Your task to perform on an android device: Open the web browser Image 0: 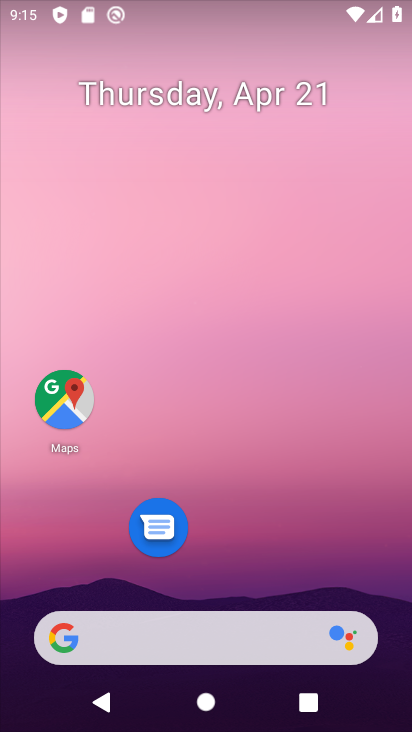
Step 0: drag from (189, 599) to (232, 62)
Your task to perform on an android device: Open the web browser Image 1: 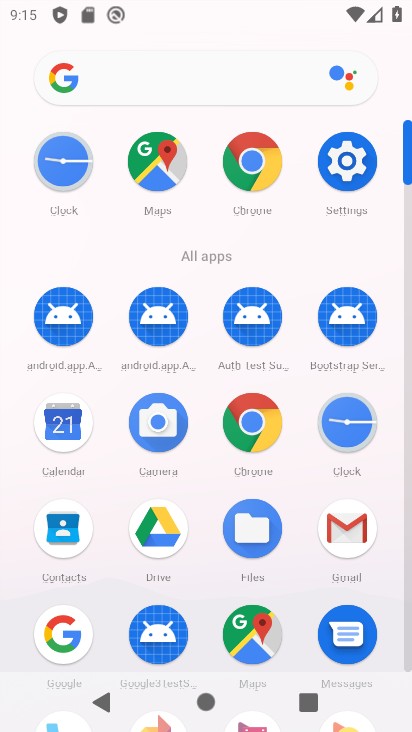
Step 1: click (254, 176)
Your task to perform on an android device: Open the web browser Image 2: 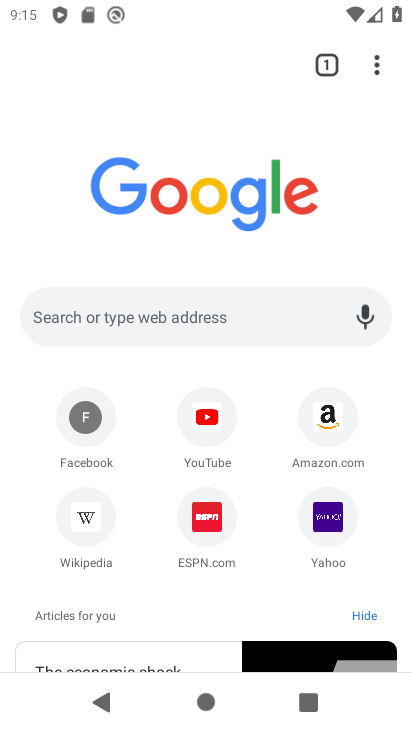
Step 2: task complete